Your task to perform on an android device: Open Chrome and go to settings Image 0: 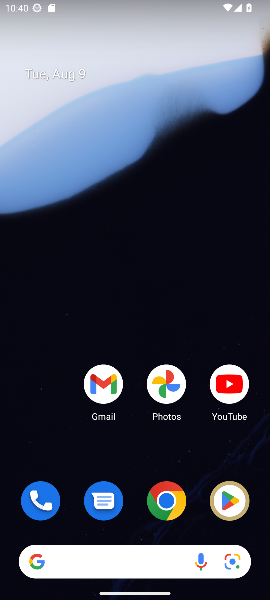
Step 0: click (164, 511)
Your task to perform on an android device: Open Chrome and go to settings Image 1: 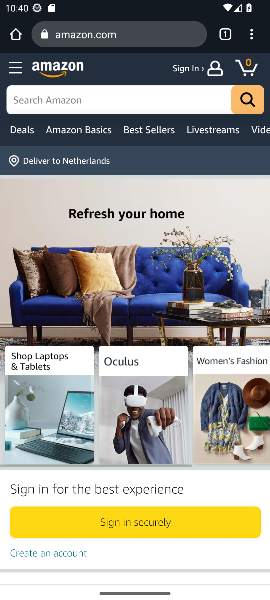
Step 1: click (249, 36)
Your task to perform on an android device: Open Chrome and go to settings Image 2: 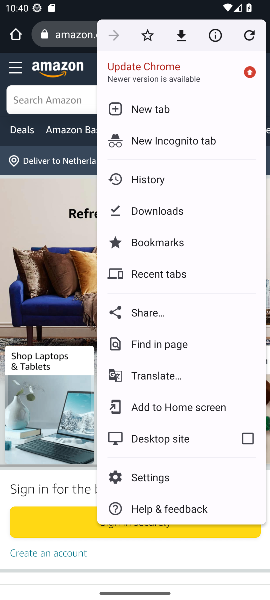
Step 2: click (134, 474)
Your task to perform on an android device: Open Chrome and go to settings Image 3: 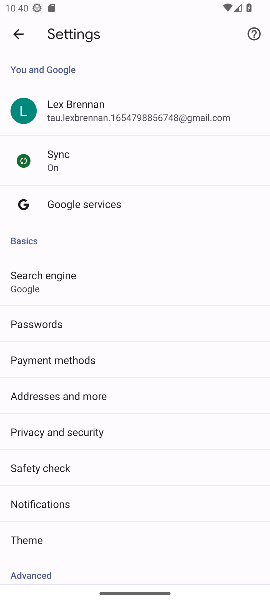
Step 3: task complete